Your task to perform on an android device: Open Youtube and go to the subscriptions tab Image 0: 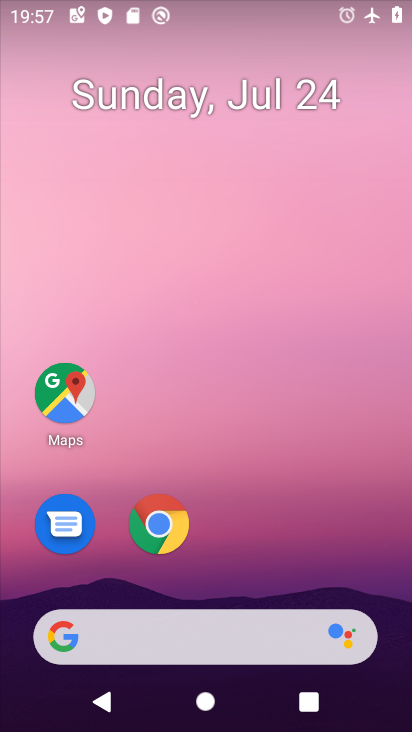
Step 0: drag from (269, 570) to (298, 0)
Your task to perform on an android device: Open Youtube and go to the subscriptions tab Image 1: 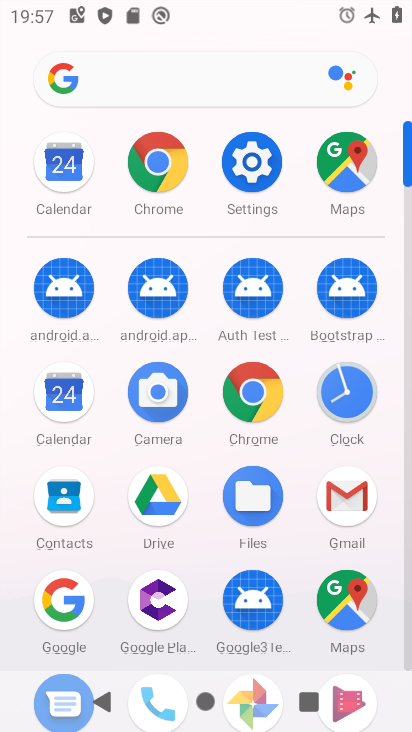
Step 1: drag from (201, 498) to (214, 17)
Your task to perform on an android device: Open Youtube and go to the subscriptions tab Image 2: 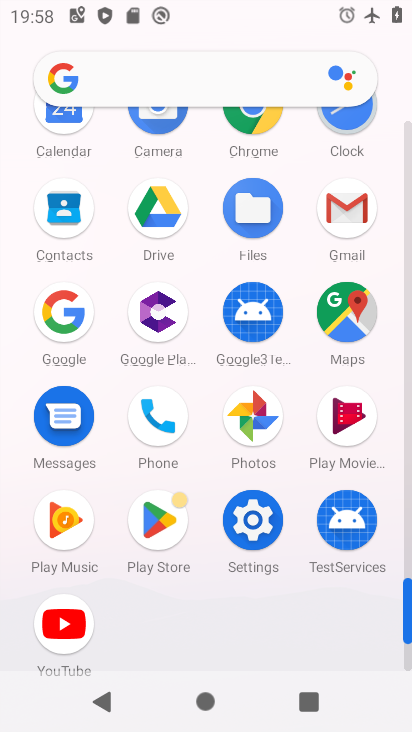
Step 2: click (67, 622)
Your task to perform on an android device: Open Youtube and go to the subscriptions tab Image 3: 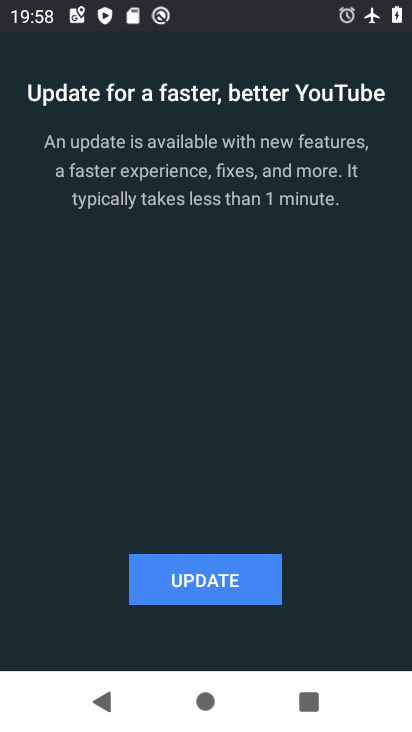
Step 3: click (178, 590)
Your task to perform on an android device: Open Youtube and go to the subscriptions tab Image 4: 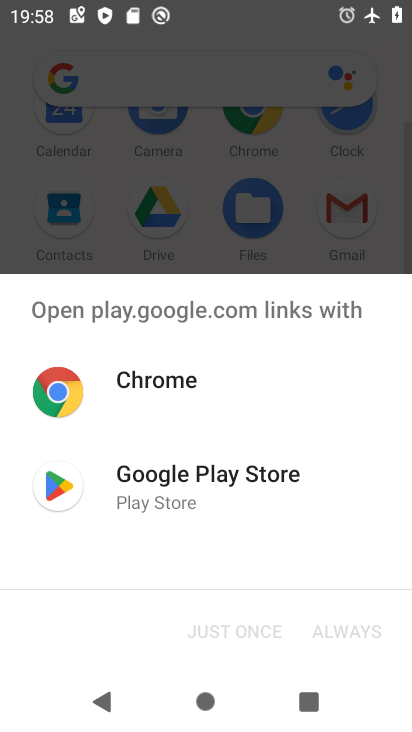
Step 4: click (136, 483)
Your task to perform on an android device: Open Youtube and go to the subscriptions tab Image 5: 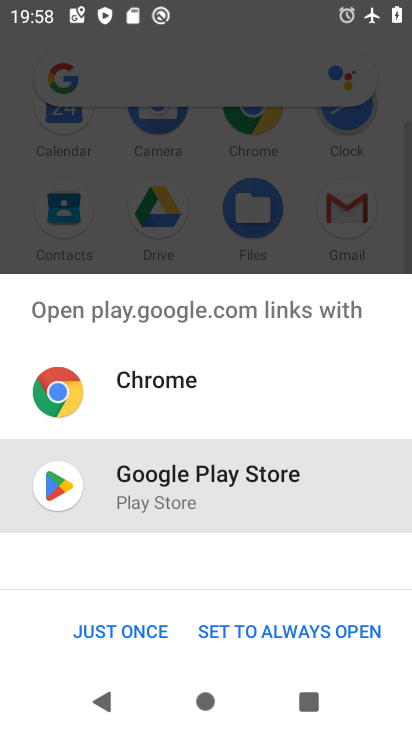
Step 5: click (132, 628)
Your task to perform on an android device: Open Youtube and go to the subscriptions tab Image 6: 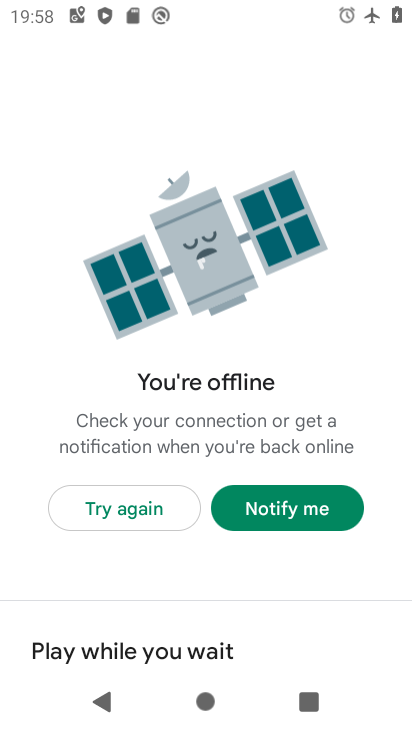
Step 6: task complete